Your task to perform on an android device: open the mobile data screen to see how much data has been used Image 0: 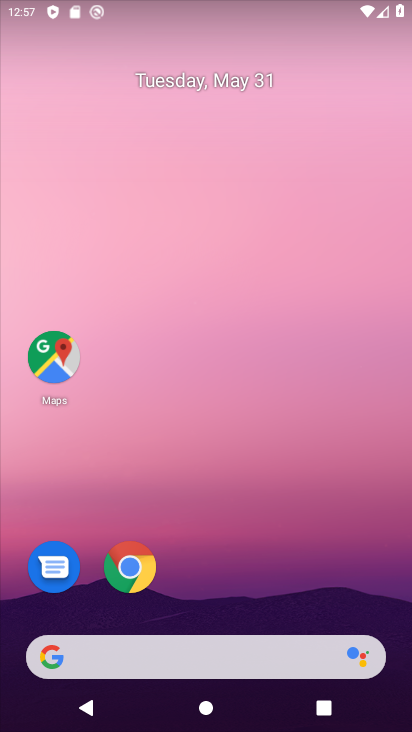
Step 0: drag from (268, 587) to (200, 76)
Your task to perform on an android device: open the mobile data screen to see how much data has been used Image 1: 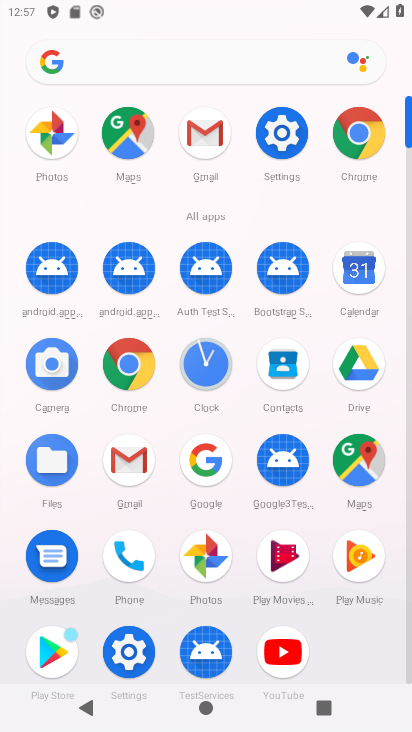
Step 1: click (281, 123)
Your task to perform on an android device: open the mobile data screen to see how much data has been used Image 2: 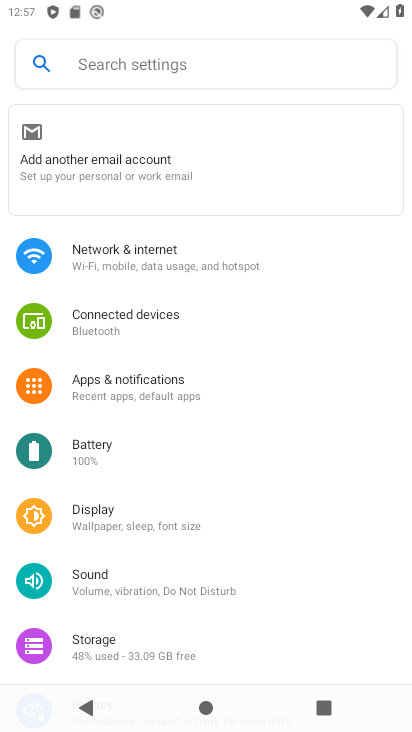
Step 2: click (129, 254)
Your task to perform on an android device: open the mobile data screen to see how much data has been used Image 3: 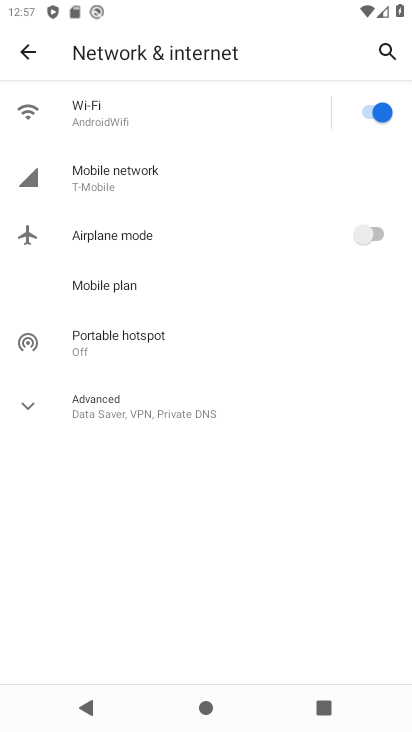
Step 3: click (122, 178)
Your task to perform on an android device: open the mobile data screen to see how much data has been used Image 4: 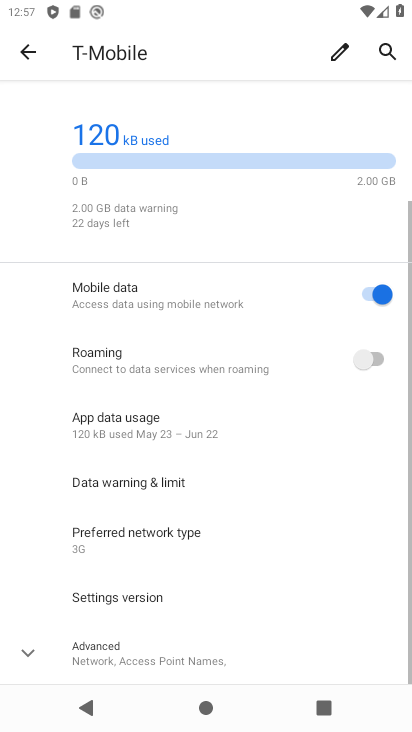
Step 4: task complete